Your task to perform on an android device: turn on data saver in the chrome app Image 0: 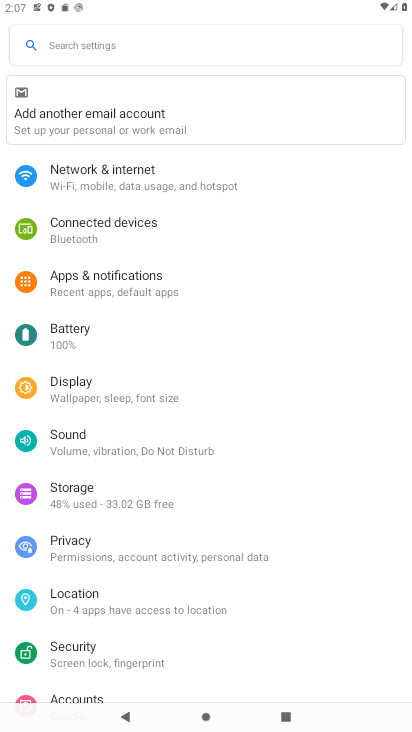
Step 0: press home button
Your task to perform on an android device: turn on data saver in the chrome app Image 1: 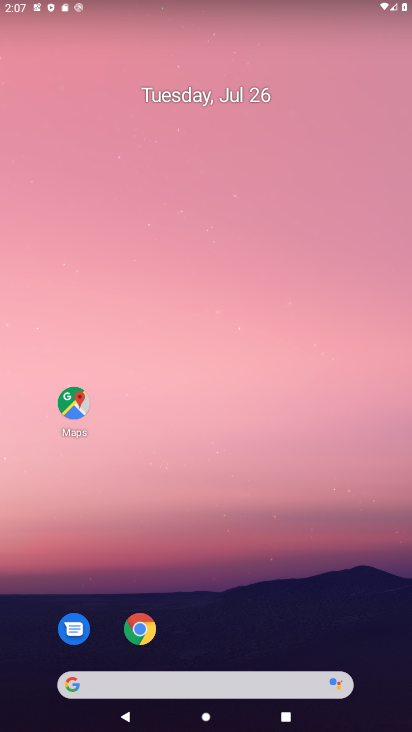
Step 1: click (151, 626)
Your task to perform on an android device: turn on data saver in the chrome app Image 2: 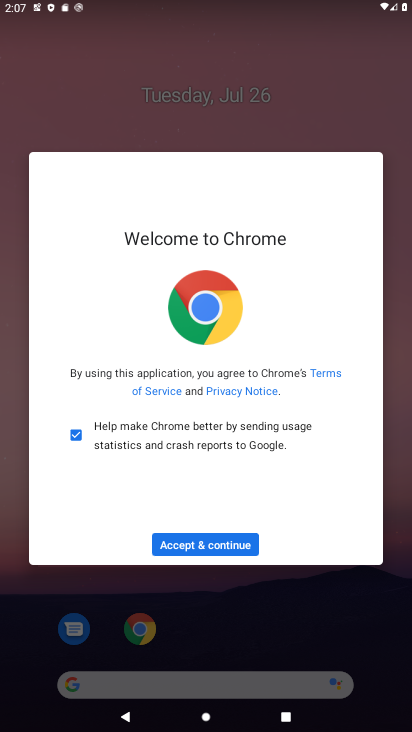
Step 2: click (235, 544)
Your task to perform on an android device: turn on data saver in the chrome app Image 3: 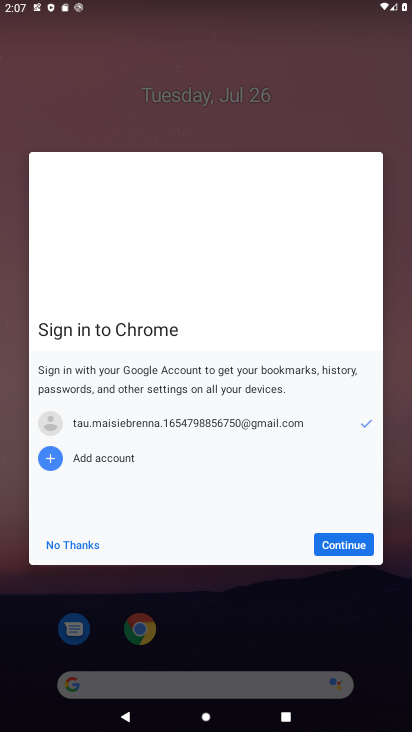
Step 3: click (335, 535)
Your task to perform on an android device: turn on data saver in the chrome app Image 4: 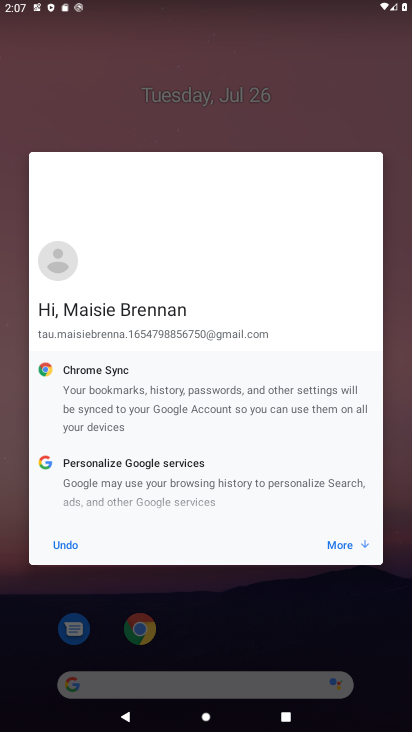
Step 4: click (327, 535)
Your task to perform on an android device: turn on data saver in the chrome app Image 5: 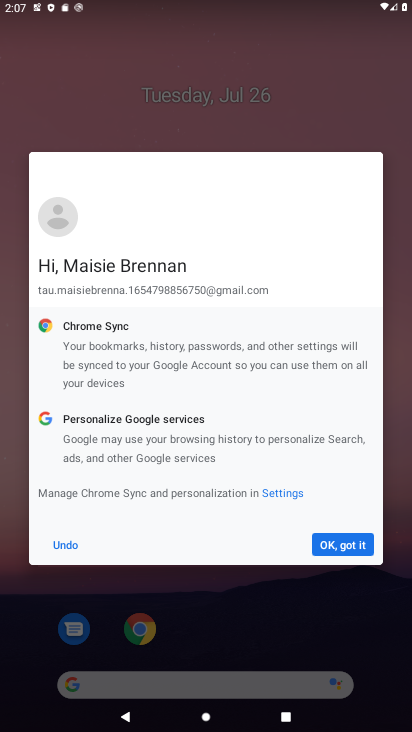
Step 5: click (327, 542)
Your task to perform on an android device: turn on data saver in the chrome app Image 6: 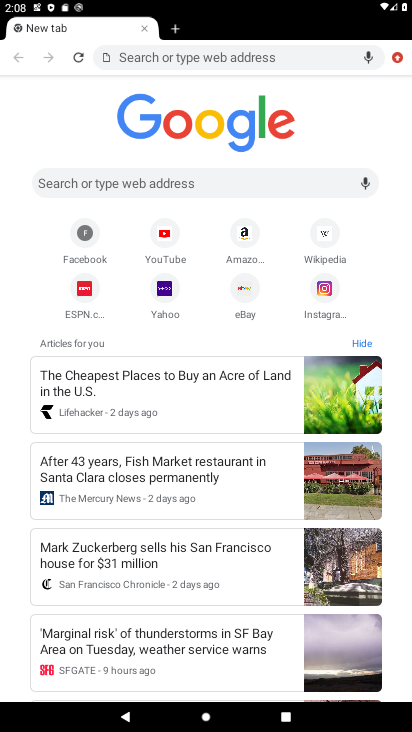
Step 6: click (399, 61)
Your task to perform on an android device: turn on data saver in the chrome app Image 7: 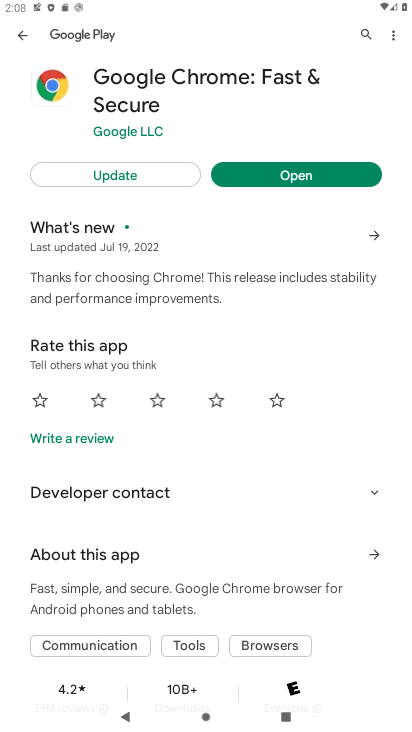
Step 7: press home button
Your task to perform on an android device: turn on data saver in the chrome app Image 8: 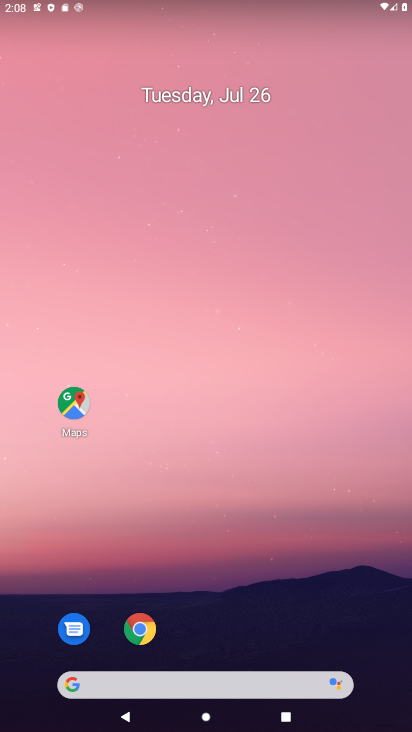
Step 8: click (150, 637)
Your task to perform on an android device: turn on data saver in the chrome app Image 9: 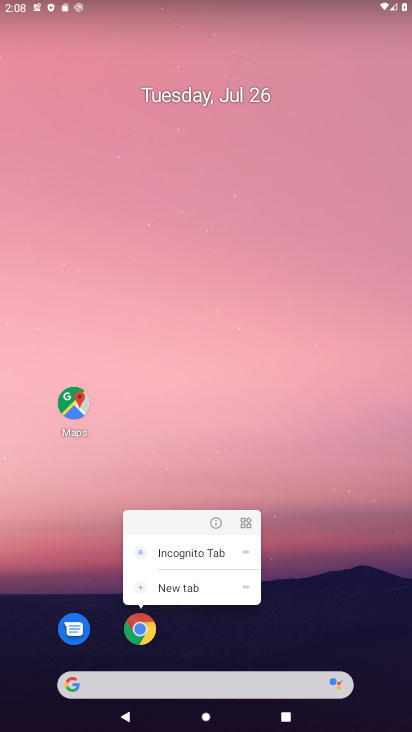
Step 9: click (131, 637)
Your task to perform on an android device: turn on data saver in the chrome app Image 10: 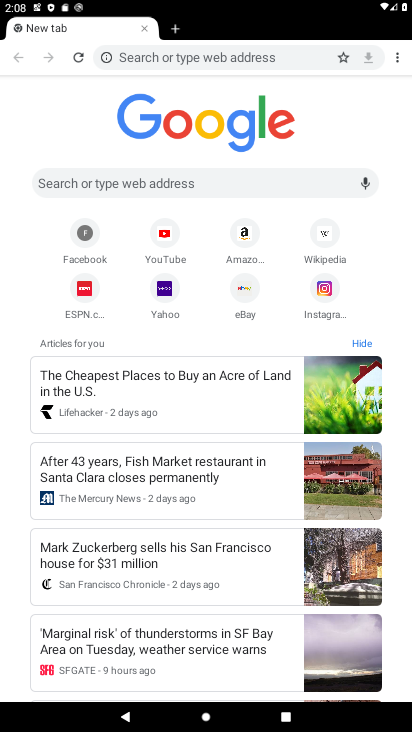
Step 10: drag from (395, 57) to (267, 289)
Your task to perform on an android device: turn on data saver in the chrome app Image 11: 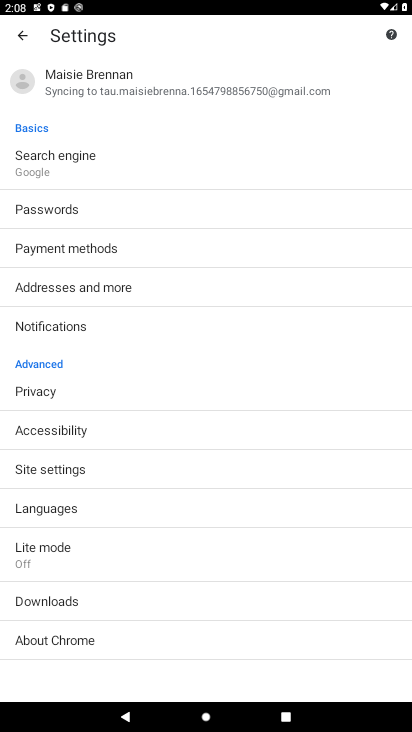
Step 11: click (86, 554)
Your task to perform on an android device: turn on data saver in the chrome app Image 12: 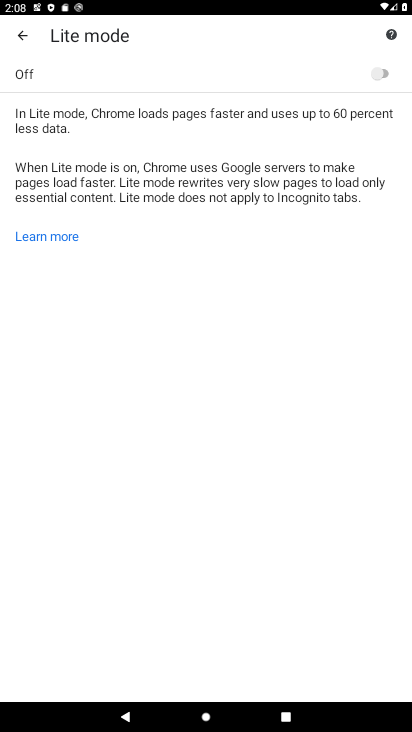
Step 12: click (377, 76)
Your task to perform on an android device: turn on data saver in the chrome app Image 13: 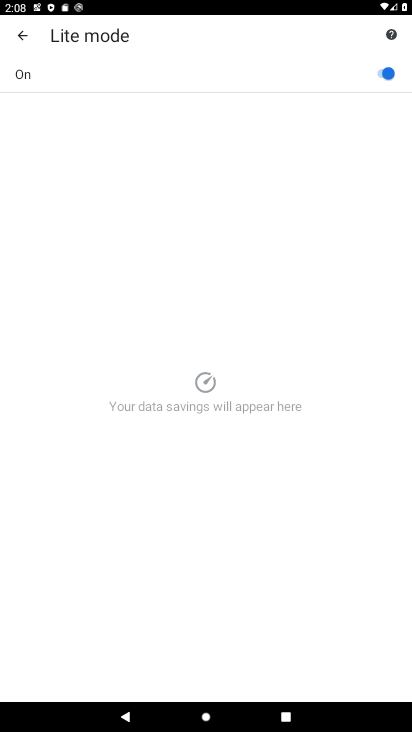
Step 13: task complete